Your task to perform on an android device: read, delete, or share a saved page in the chrome app Image 0: 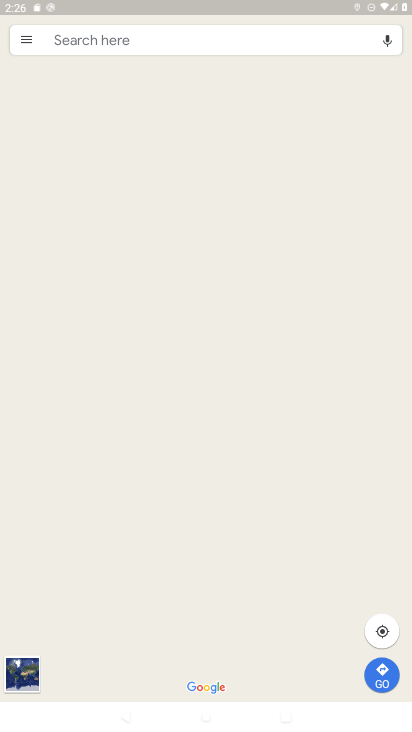
Step 0: press home button
Your task to perform on an android device: read, delete, or share a saved page in the chrome app Image 1: 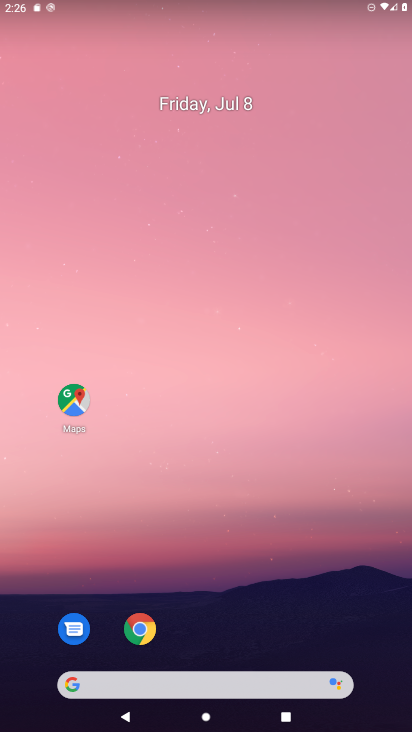
Step 1: click (140, 634)
Your task to perform on an android device: read, delete, or share a saved page in the chrome app Image 2: 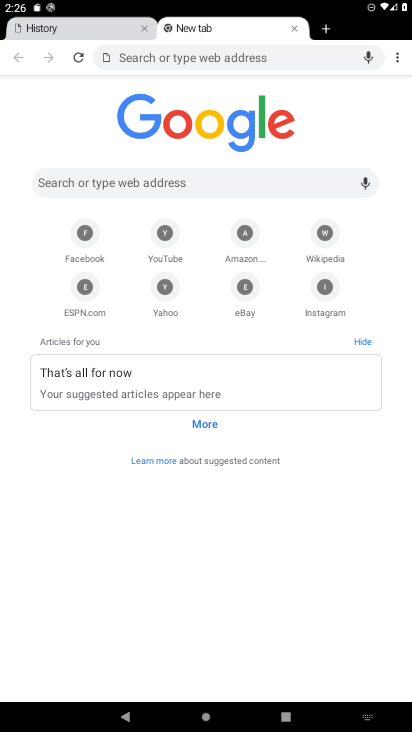
Step 2: click (396, 51)
Your task to perform on an android device: read, delete, or share a saved page in the chrome app Image 3: 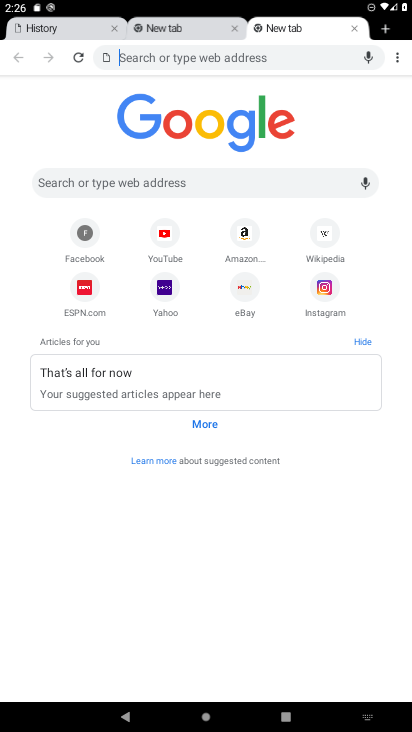
Step 3: click (398, 47)
Your task to perform on an android device: read, delete, or share a saved page in the chrome app Image 4: 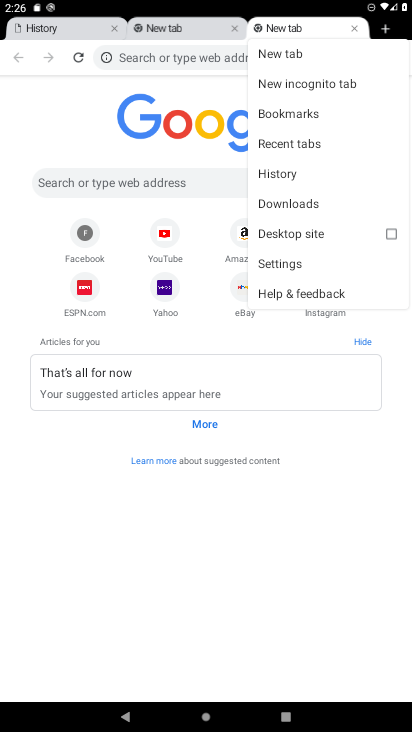
Step 4: click (284, 105)
Your task to perform on an android device: read, delete, or share a saved page in the chrome app Image 5: 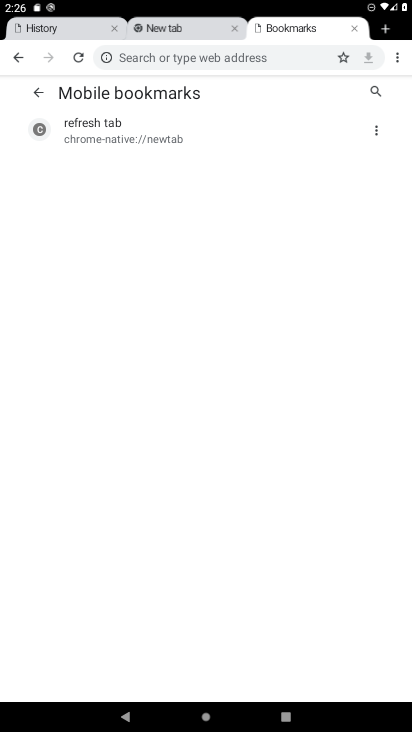
Step 5: task complete